Your task to perform on an android device: toggle translation in the chrome app Image 0: 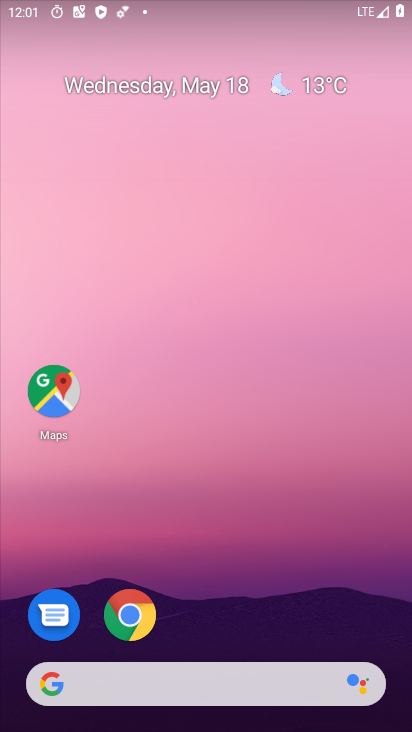
Step 0: press home button
Your task to perform on an android device: toggle translation in the chrome app Image 1: 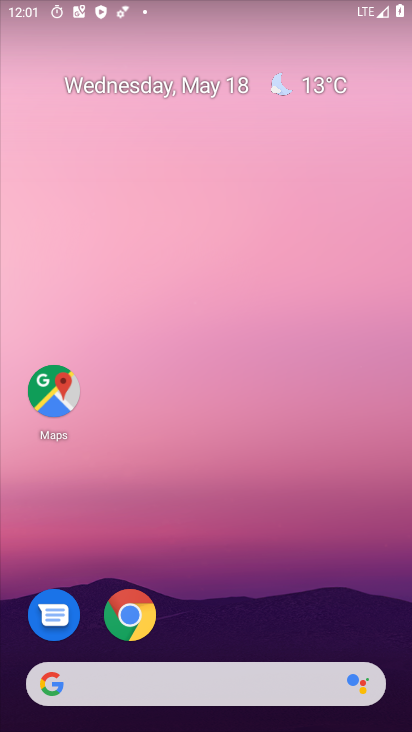
Step 1: click (127, 626)
Your task to perform on an android device: toggle translation in the chrome app Image 2: 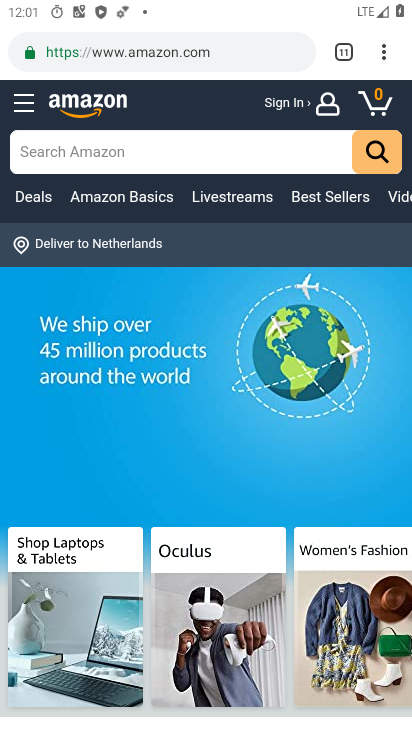
Step 2: drag from (381, 55) to (236, 622)
Your task to perform on an android device: toggle translation in the chrome app Image 3: 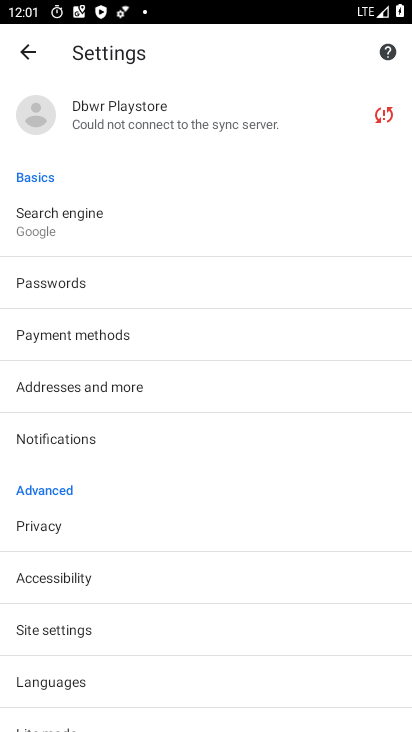
Step 3: click (70, 676)
Your task to perform on an android device: toggle translation in the chrome app Image 4: 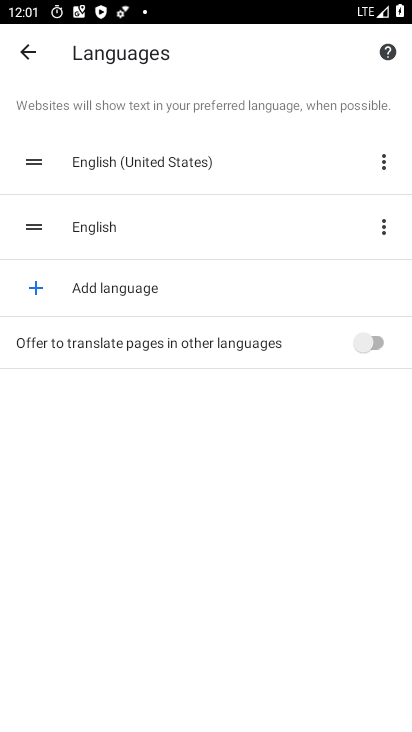
Step 4: click (380, 343)
Your task to perform on an android device: toggle translation in the chrome app Image 5: 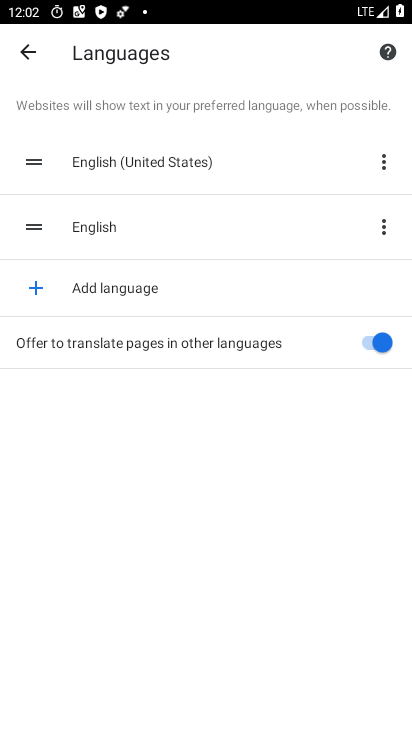
Step 5: task complete